Your task to perform on an android device: see creations saved in the google photos Image 0: 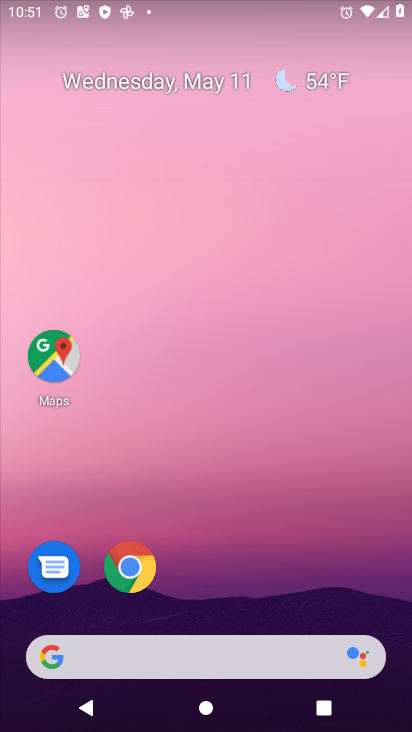
Step 0: drag from (233, 611) to (278, 81)
Your task to perform on an android device: see creations saved in the google photos Image 1: 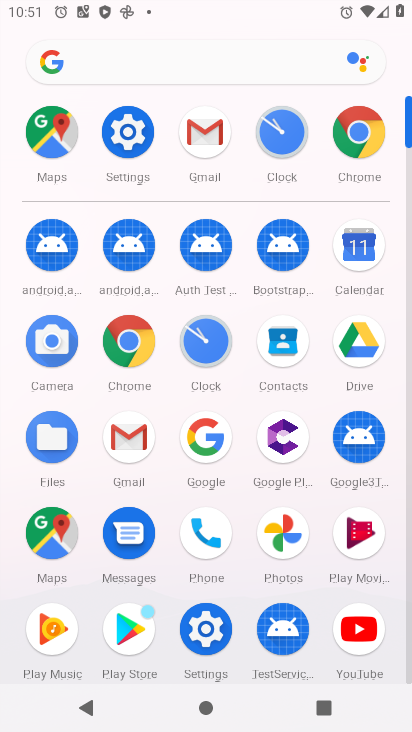
Step 1: click (266, 539)
Your task to perform on an android device: see creations saved in the google photos Image 2: 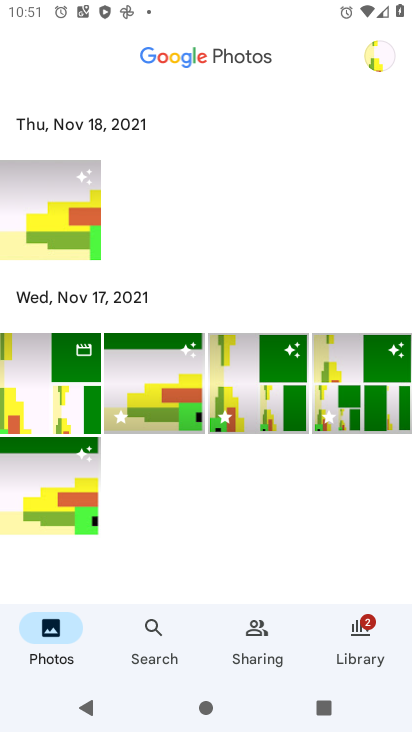
Step 2: click (360, 630)
Your task to perform on an android device: see creations saved in the google photos Image 3: 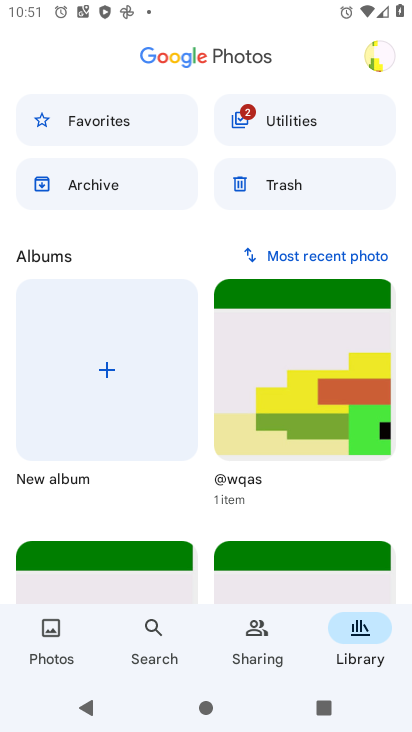
Step 3: drag from (231, 450) to (274, 141)
Your task to perform on an android device: see creations saved in the google photos Image 4: 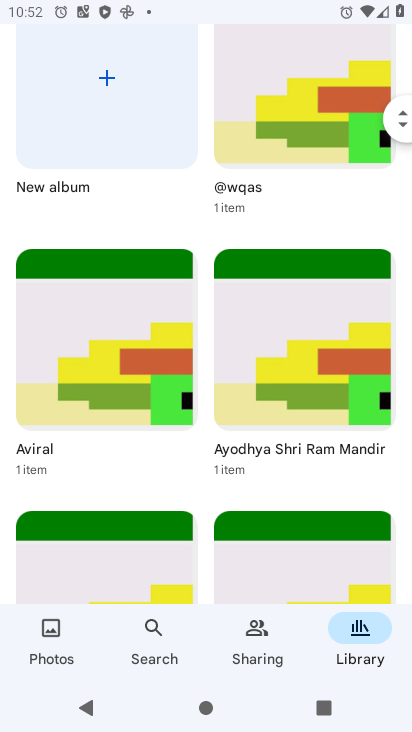
Step 4: drag from (216, 227) to (207, 593)
Your task to perform on an android device: see creations saved in the google photos Image 5: 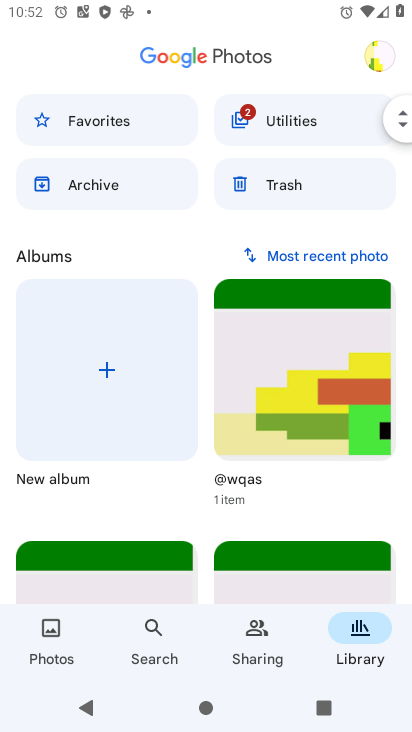
Step 5: click (155, 636)
Your task to perform on an android device: see creations saved in the google photos Image 6: 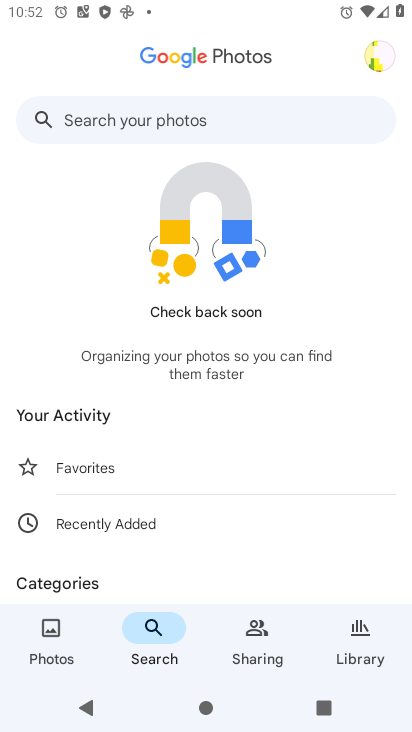
Step 6: click (166, 124)
Your task to perform on an android device: see creations saved in the google photos Image 7: 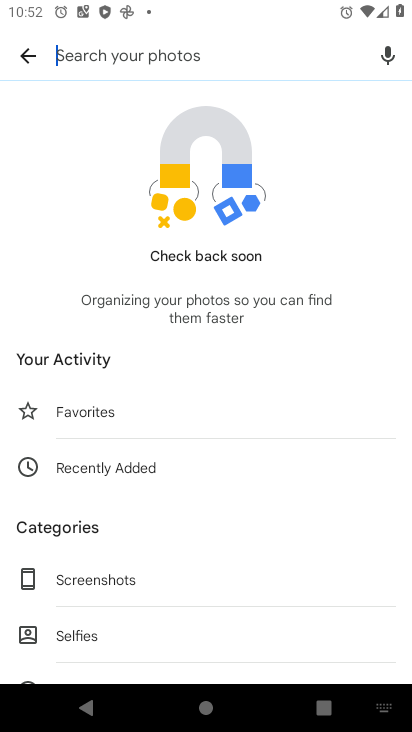
Step 7: type "creations"
Your task to perform on an android device: see creations saved in the google photos Image 8: 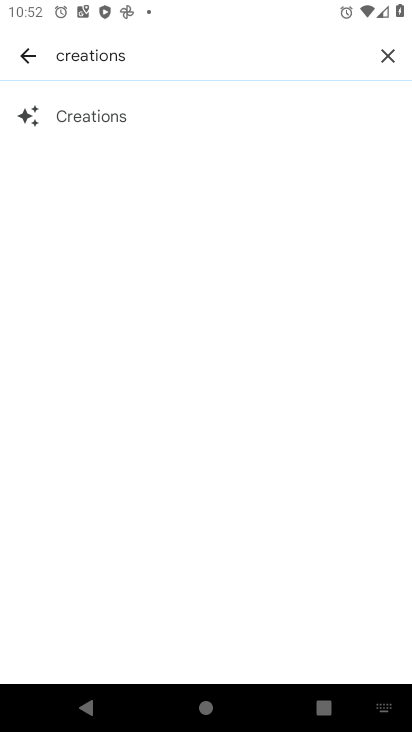
Step 8: click (135, 113)
Your task to perform on an android device: see creations saved in the google photos Image 9: 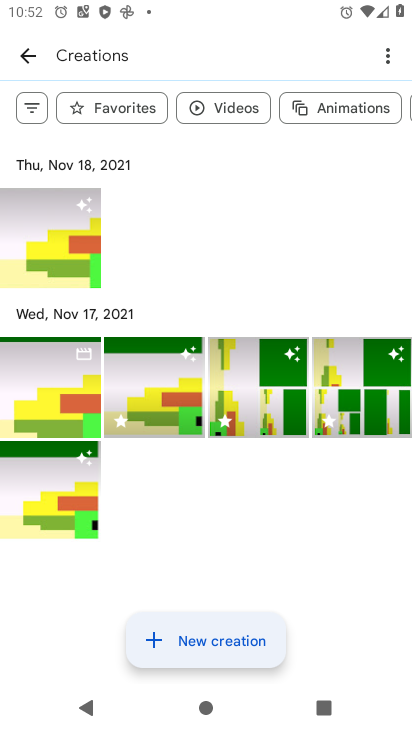
Step 9: task complete